Your task to perform on an android device: read, delete, or share a saved page in the chrome app Image 0: 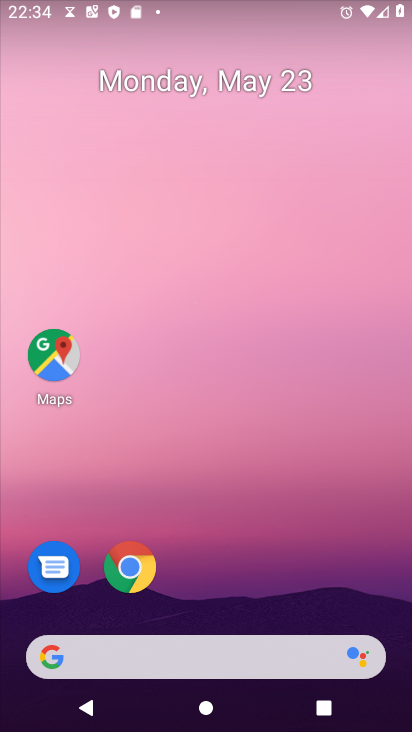
Step 0: click (140, 572)
Your task to perform on an android device: read, delete, or share a saved page in the chrome app Image 1: 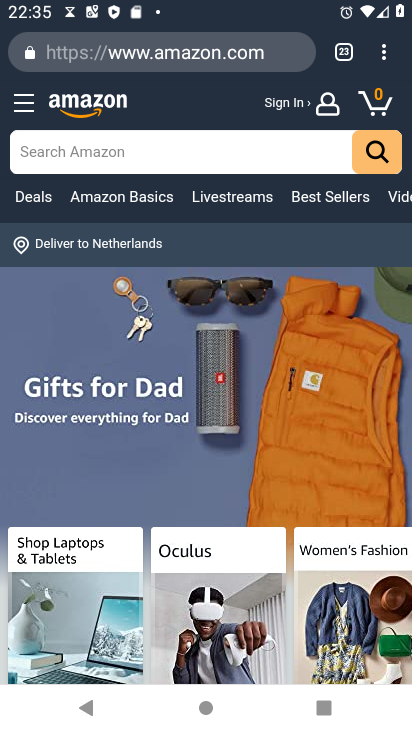
Step 1: click (379, 56)
Your task to perform on an android device: read, delete, or share a saved page in the chrome app Image 2: 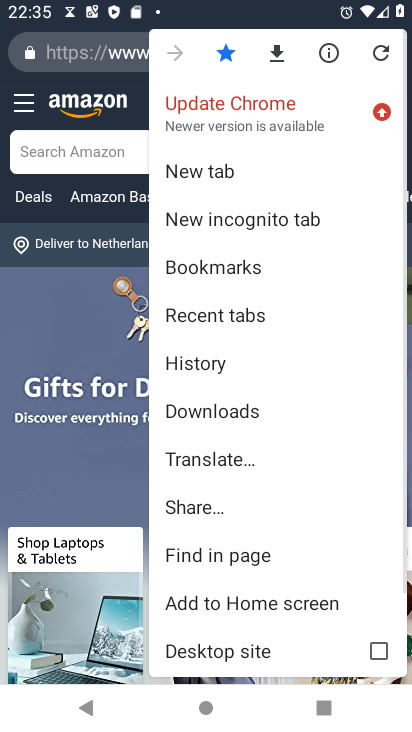
Step 2: click (217, 175)
Your task to perform on an android device: read, delete, or share a saved page in the chrome app Image 3: 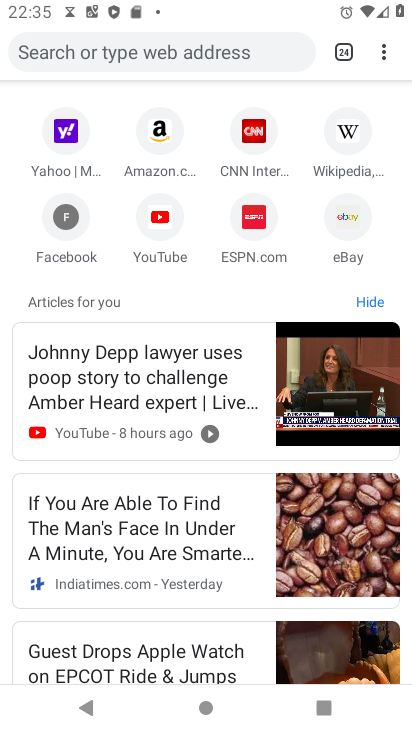
Step 3: click (397, 55)
Your task to perform on an android device: read, delete, or share a saved page in the chrome app Image 4: 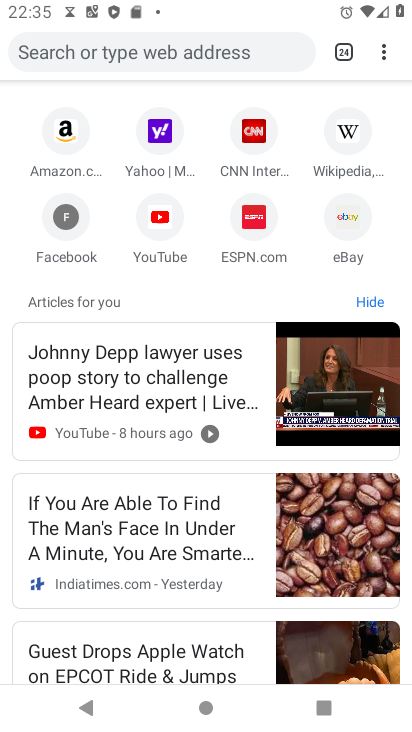
Step 4: click (374, 51)
Your task to perform on an android device: read, delete, or share a saved page in the chrome app Image 5: 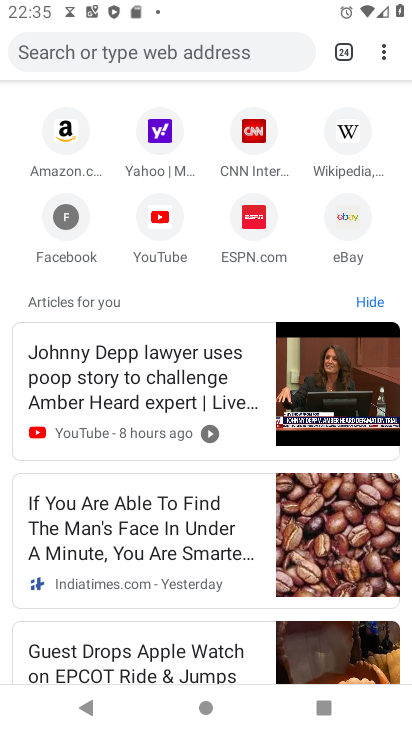
Step 5: click (377, 54)
Your task to perform on an android device: read, delete, or share a saved page in the chrome app Image 6: 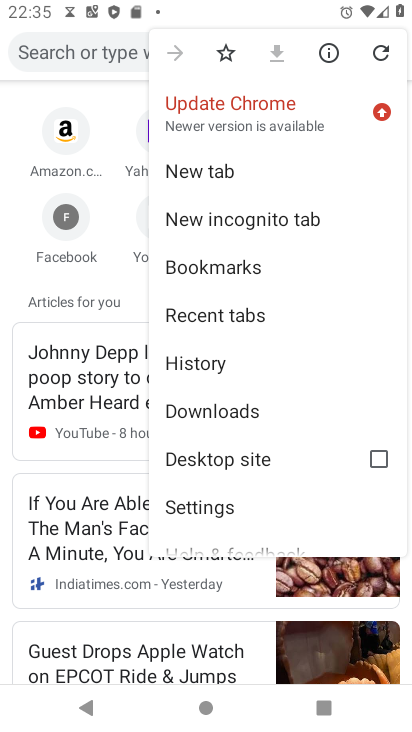
Step 6: click (258, 421)
Your task to perform on an android device: read, delete, or share a saved page in the chrome app Image 7: 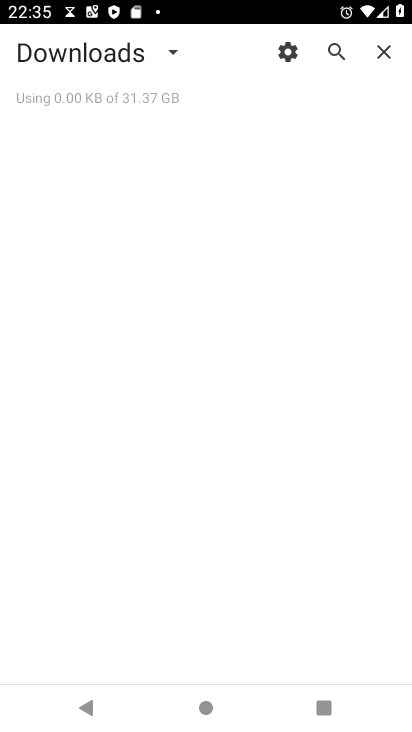
Step 7: click (162, 30)
Your task to perform on an android device: read, delete, or share a saved page in the chrome app Image 8: 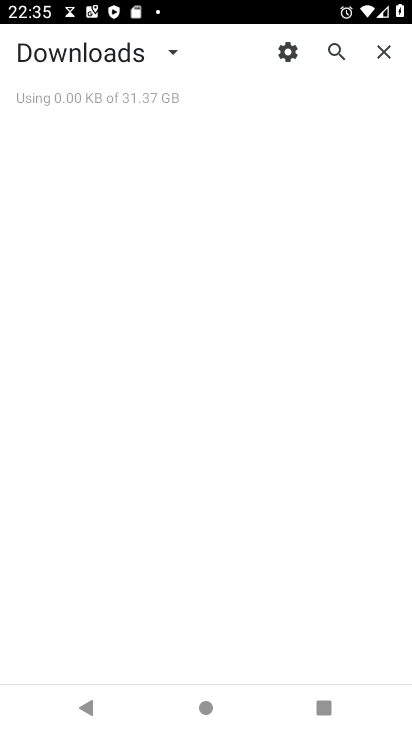
Step 8: click (165, 51)
Your task to perform on an android device: read, delete, or share a saved page in the chrome app Image 9: 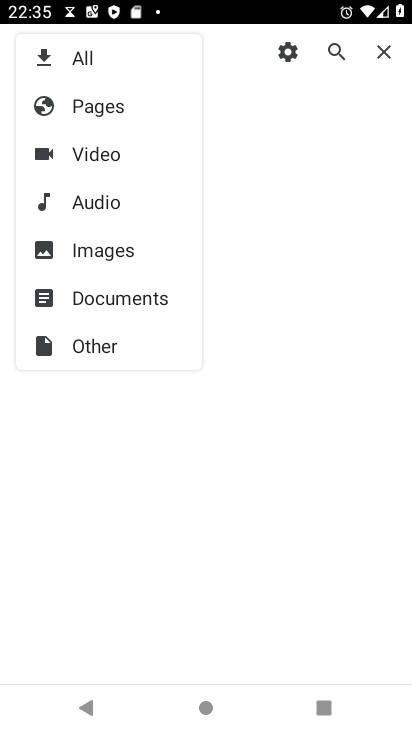
Step 9: click (96, 115)
Your task to perform on an android device: read, delete, or share a saved page in the chrome app Image 10: 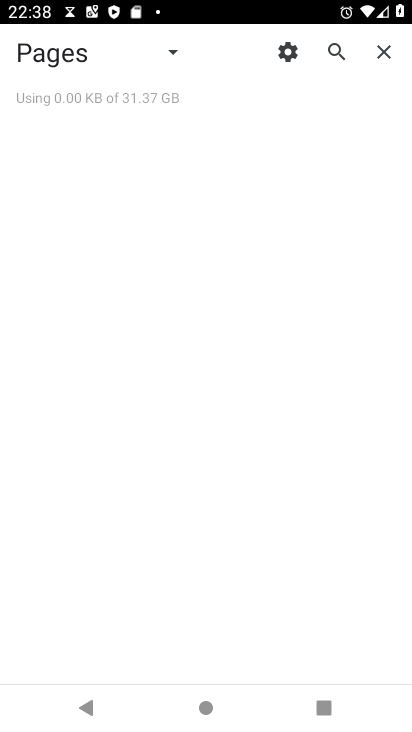
Step 10: task complete